Your task to perform on an android device: turn vacation reply on in the gmail app Image 0: 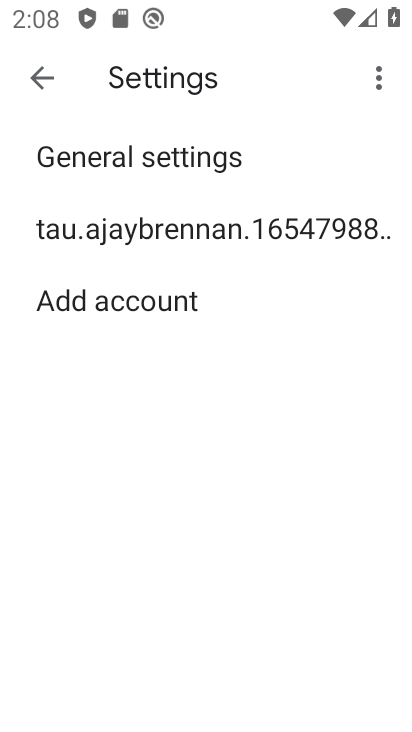
Step 0: press back button
Your task to perform on an android device: turn vacation reply on in the gmail app Image 1: 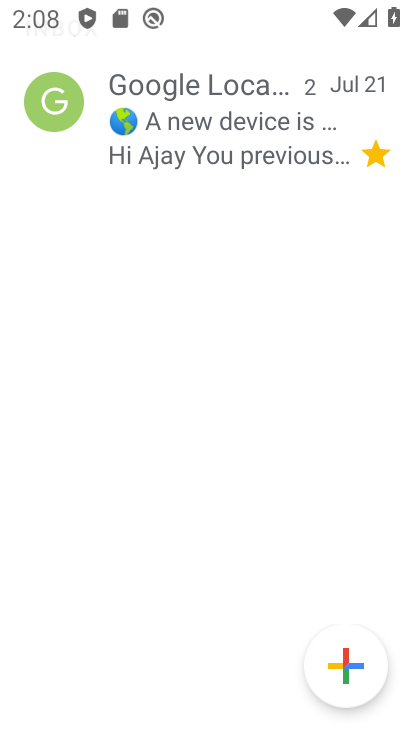
Step 1: press back button
Your task to perform on an android device: turn vacation reply on in the gmail app Image 2: 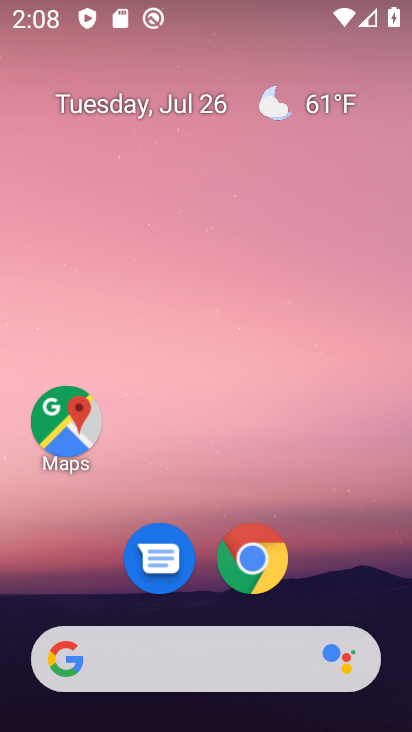
Step 2: drag from (215, 550) to (311, 11)
Your task to perform on an android device: turn vacation reply on in the gmail app Image 3: 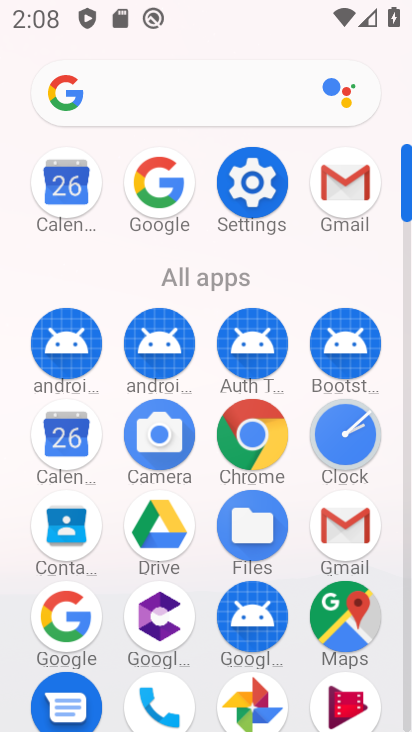
Step 3: click (347, 176)
Your task to perform on an android device: turn vacation reply on in the gmail app Image 4: 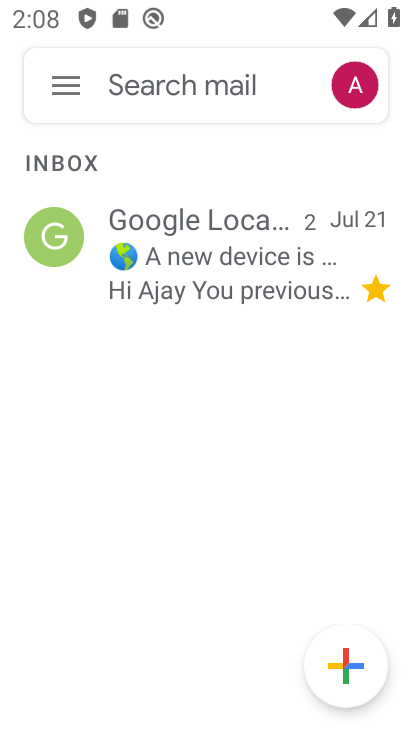
Step 4: click (63, 83)
Your task to perform on an android device: turn vacation reply on in the gmail app Image 5: 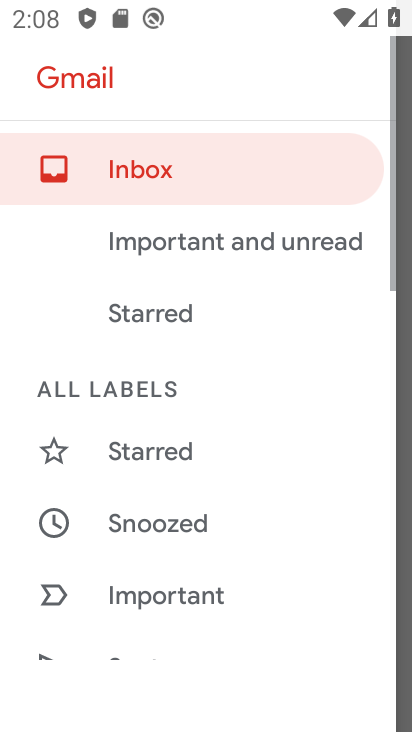
Step 5: drag from (199, 627) to (279, 42)
Your task to perform on an android device: turn vacation reply on in the gmail app Image 6: 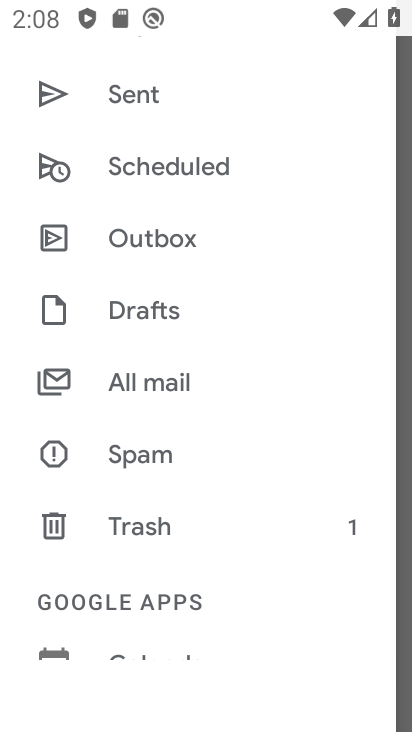
Step 6: drag from (180, 615) to (281, 21)
Your task to perform on an android device: turn vacation reply on in the gmail app Image 7: 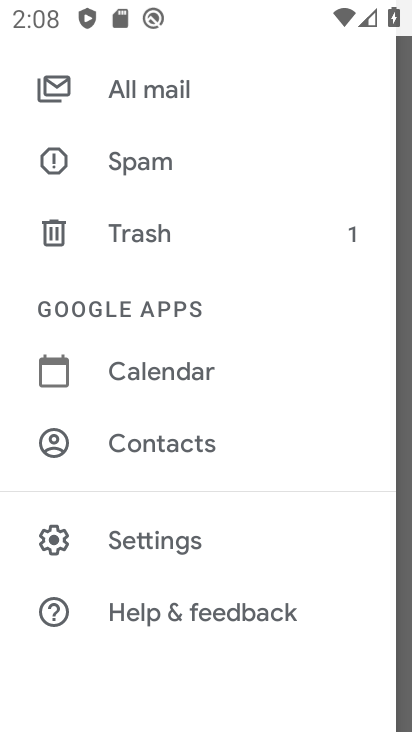
Step 7: click (176, 535)
Your task to perform on an android device: turn vacation reply on in the gmail app Image 8: 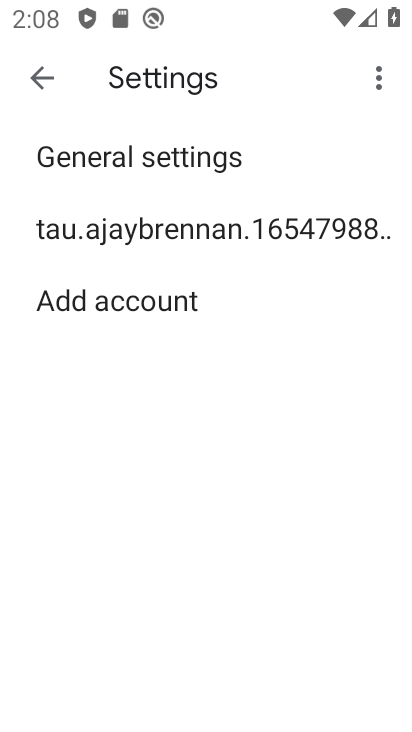
Step 8: click (168, 244)
Your task to perform on an android device: turn vacation reply on in the gmail app Image 9: 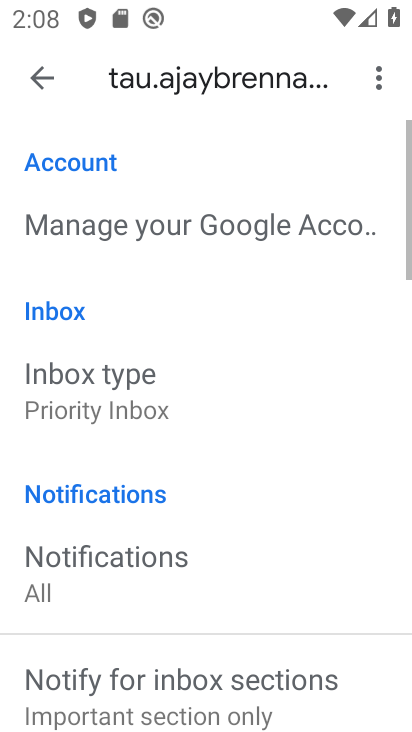
Step 9: drag from (175, 687) to (280, 13)
Your task to perform on an android device: turn vacation reply on in the gmail app Image 10: 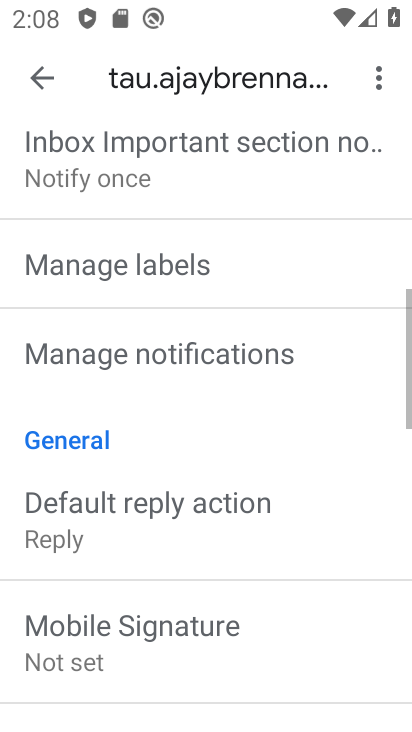
Step 10: drag from (186, 649) to (276, 83)
Your task to perform on an android device: turn vacation reply on in the gmail app Image 11: 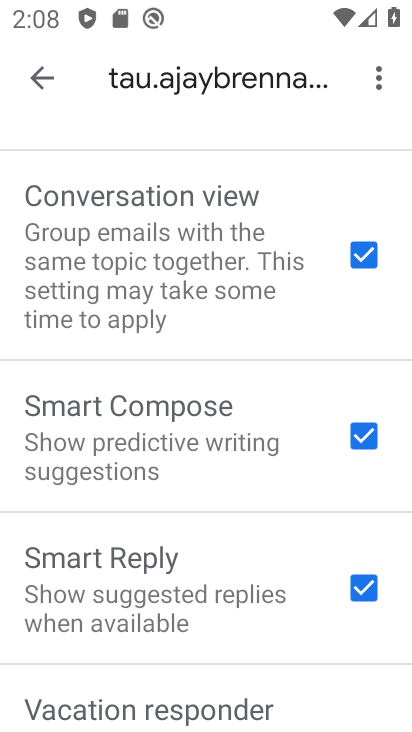
Step 11: click (154, 697)
Your task to perform on an android device: turn vacation reply on in the gmail app Image 12: 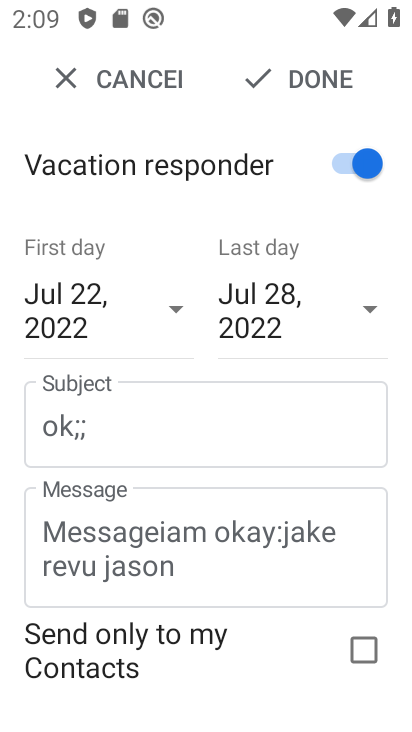
Step 12: task complete